Your task to perform on an android device: turn on airplane mode Image 0: 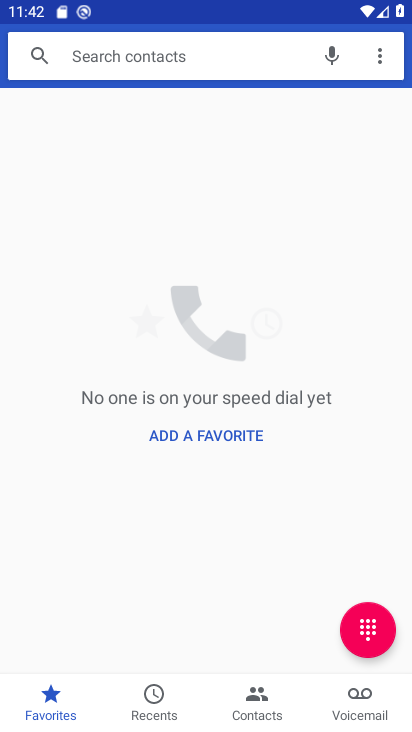
Step 0: press back button
Your task to perform on an android device: turn on airplane mode Image 1: 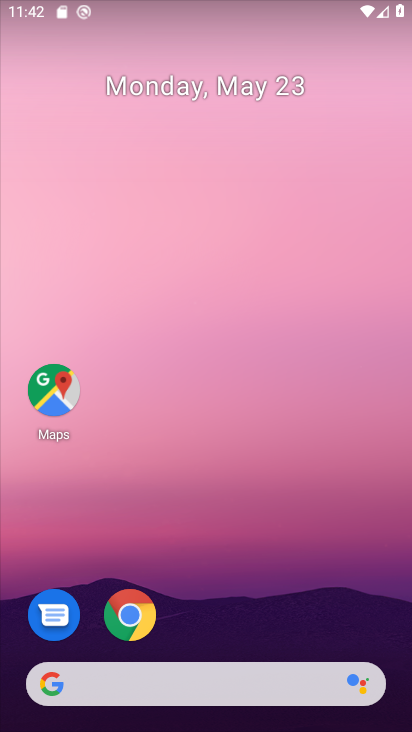
Step 1: drag from (241, 621) to (277, 113)
Your task to perform on an android device: turn on airplane mode Image 2: 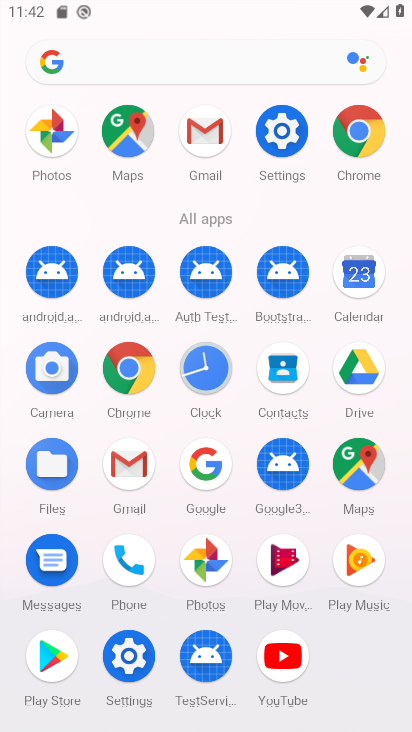
Step 2: click (284, 134)
Your task to perform on an android device: turn on airplane mode Image 3: 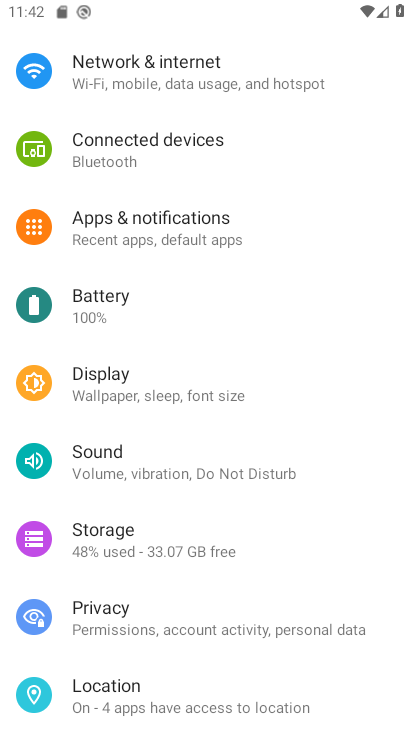
Step 3: click (229, 79)
Your task to perform on an android device: turn on airplane mode Image 4: 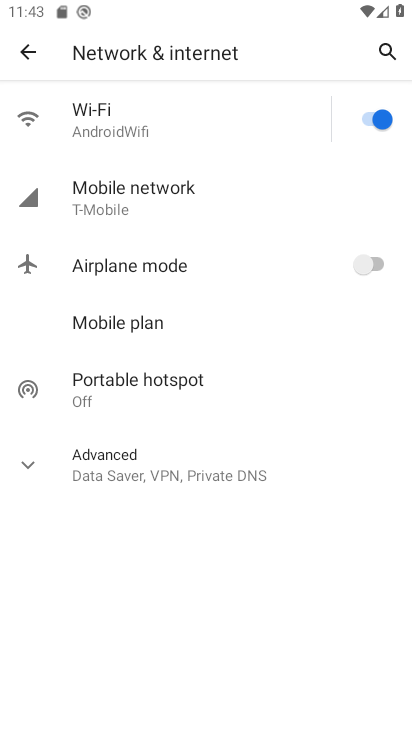
Step 4: click (369, 264)
Your task to perform on an android device: turn on airplane mode Image 5: 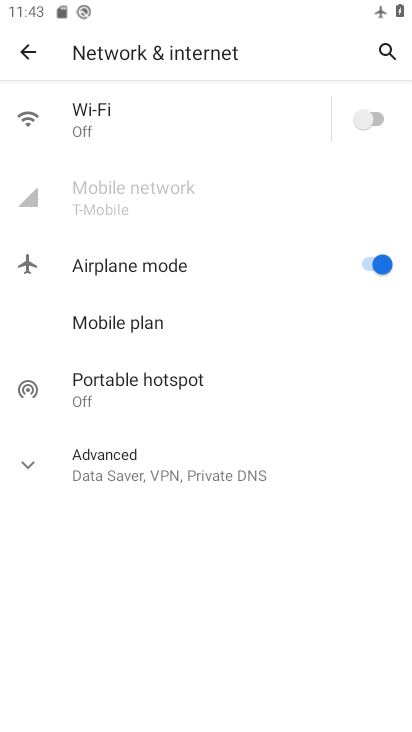
Step 5: task complete